Your task to perform on an android device: remove spam from my inbox in the gmail app Image 0: 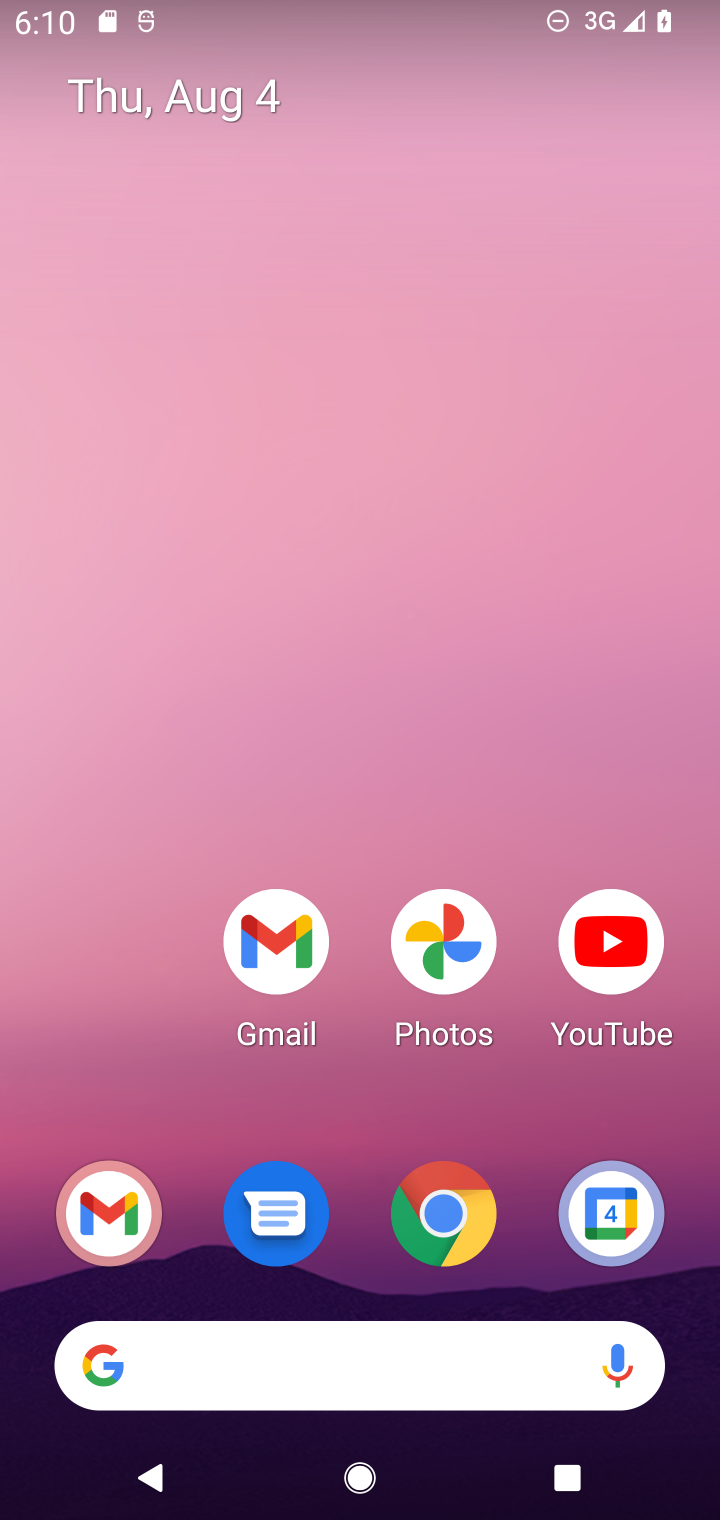
Step 0: press home button
Your task to perform on an android device: remove spam from my inbox in the gmail app Image 1: 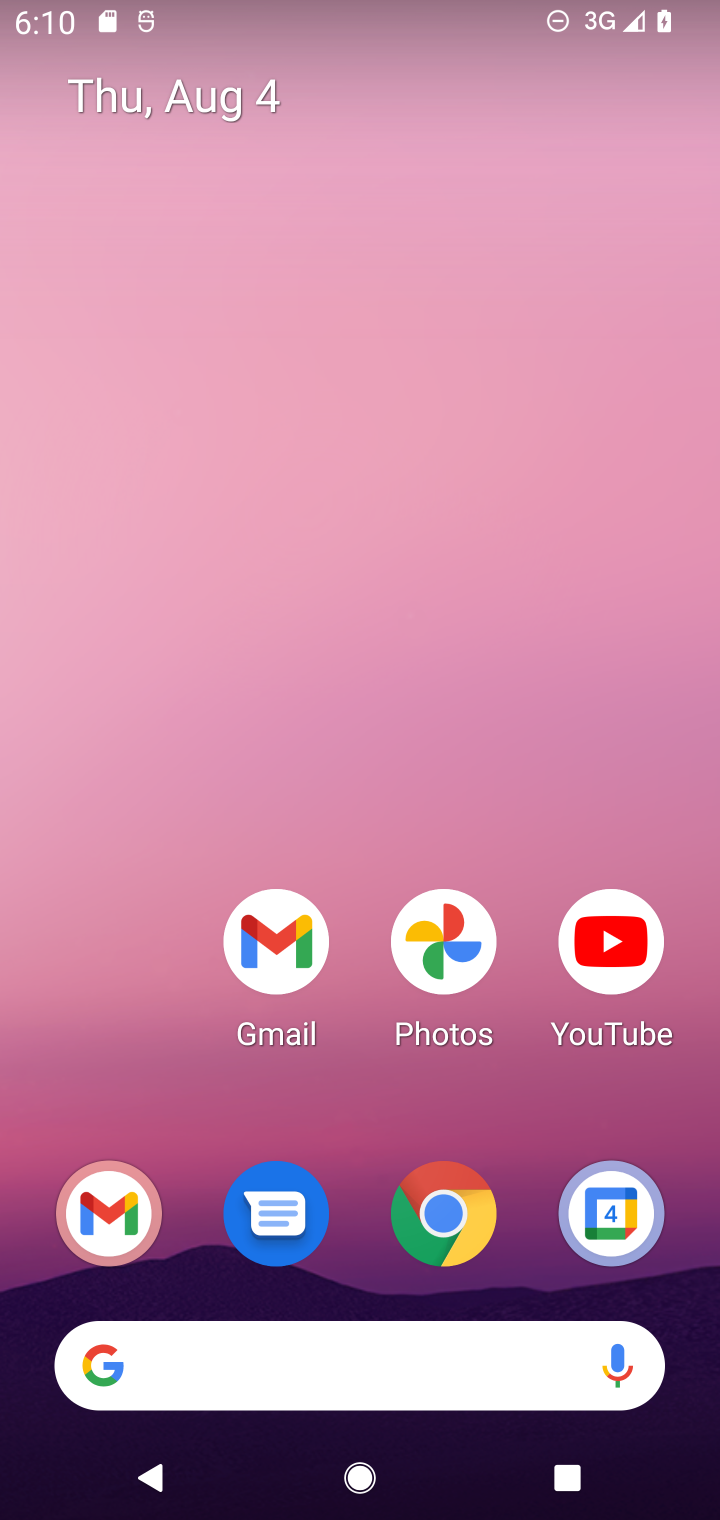
Step 1: drag from (154, 1101) to (154, 413)
Your task to perform on an android device: remove spam from my inbox in the gmail app Image 2: 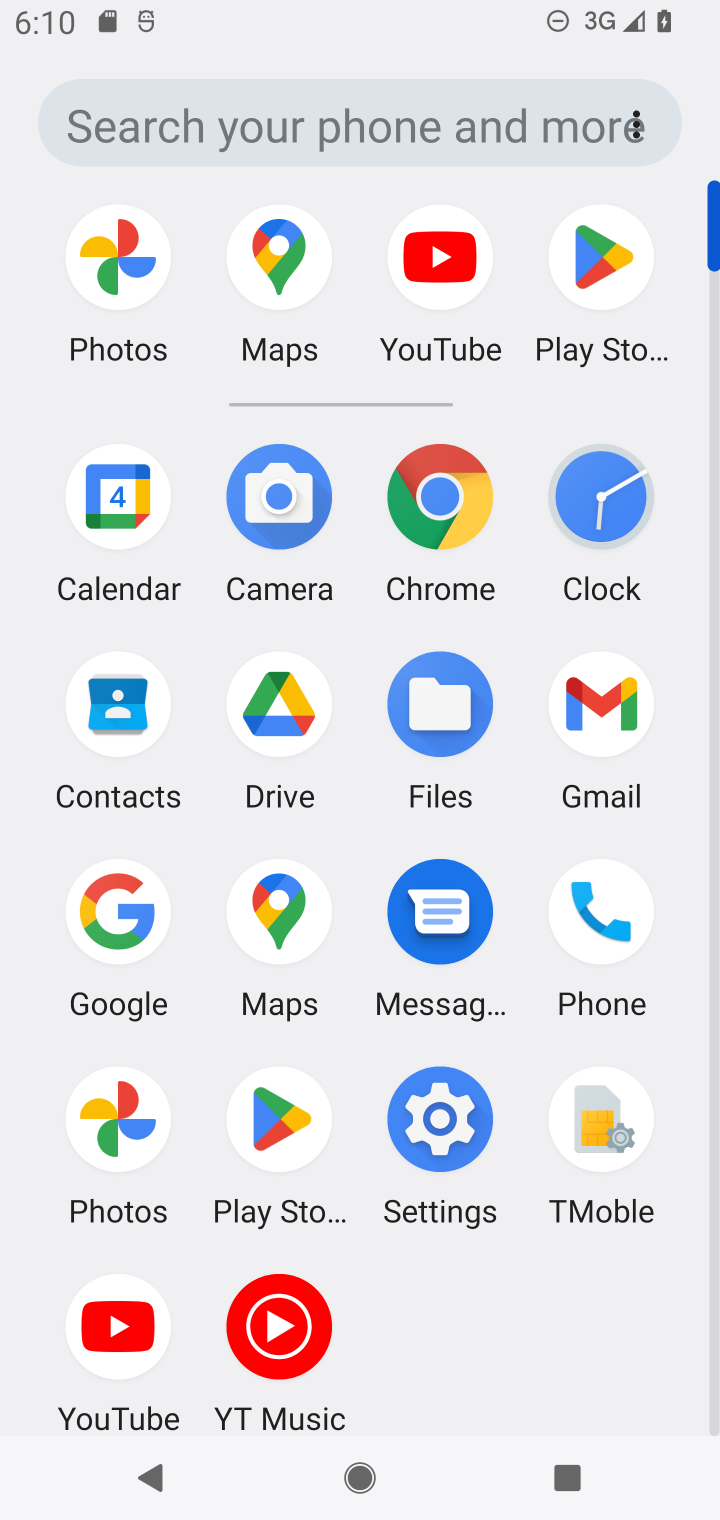
Step 2: click (606, 703)
Your task to perform on an android device: remove spam from my inbox in the gmail app Image 3: 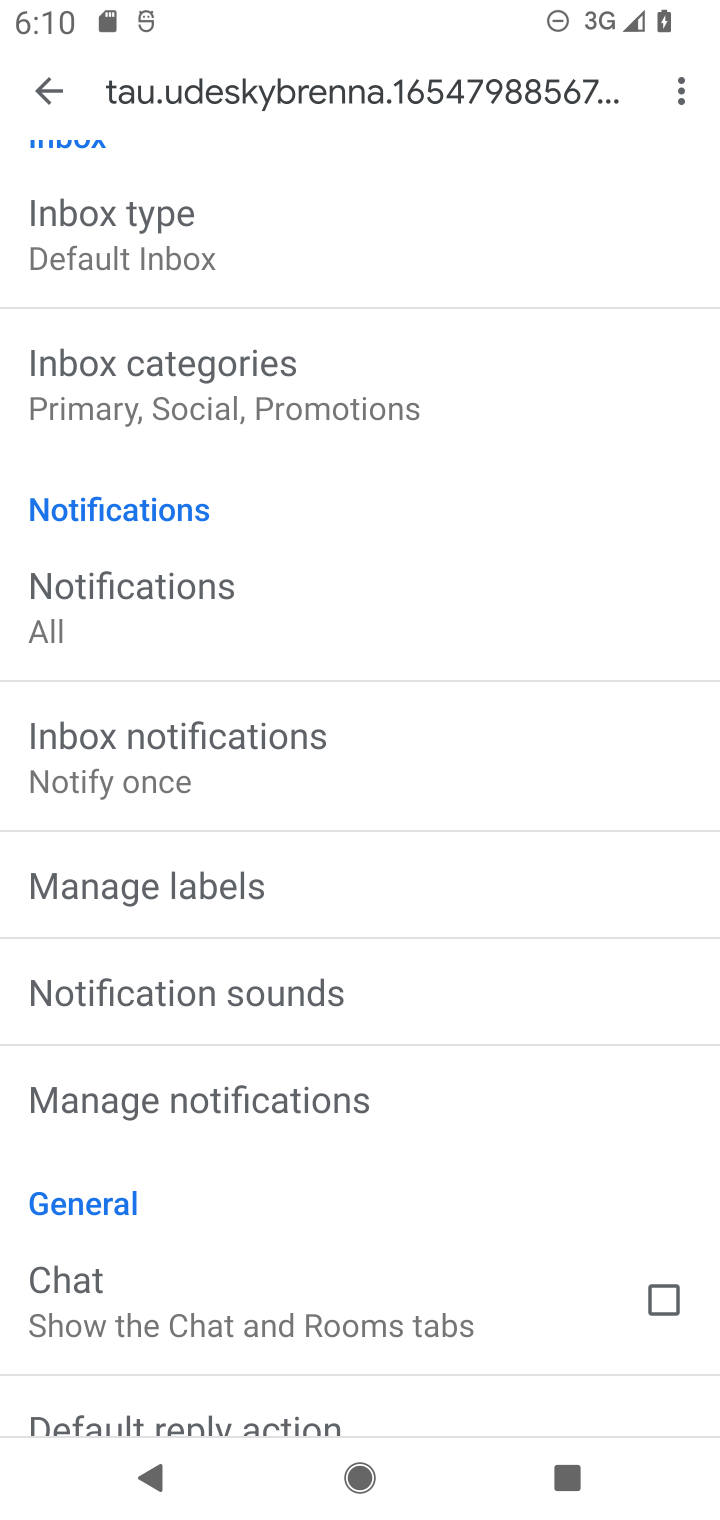
Step 3: drag from (558, 1027) to (558, 775)
Your task to perform on an android device: remove spam from my inbox in the gmail app Image 4: 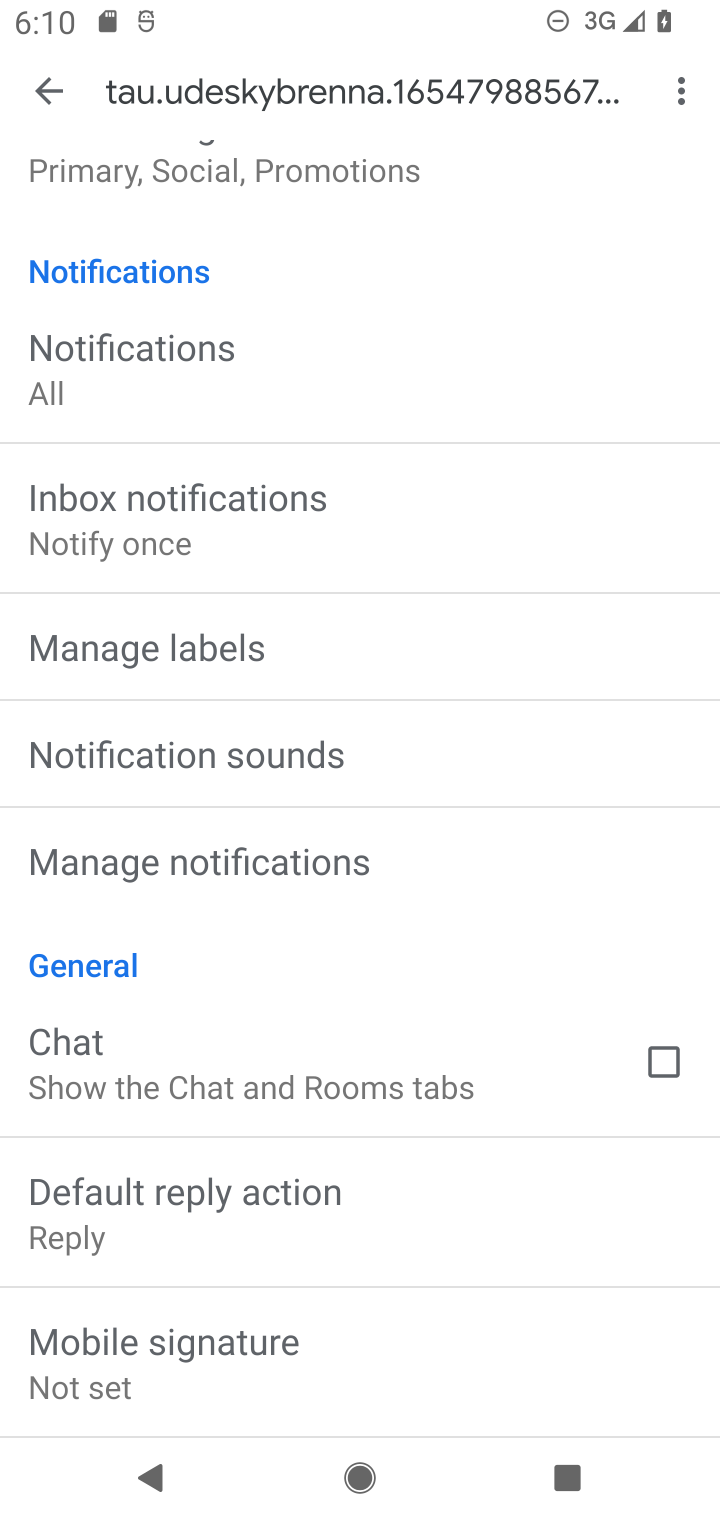
Step 4: drag from (519, 1231) to (543, 828)
Your task to perform on an android device: remove spam from my inbox in the gmail app Image 5: 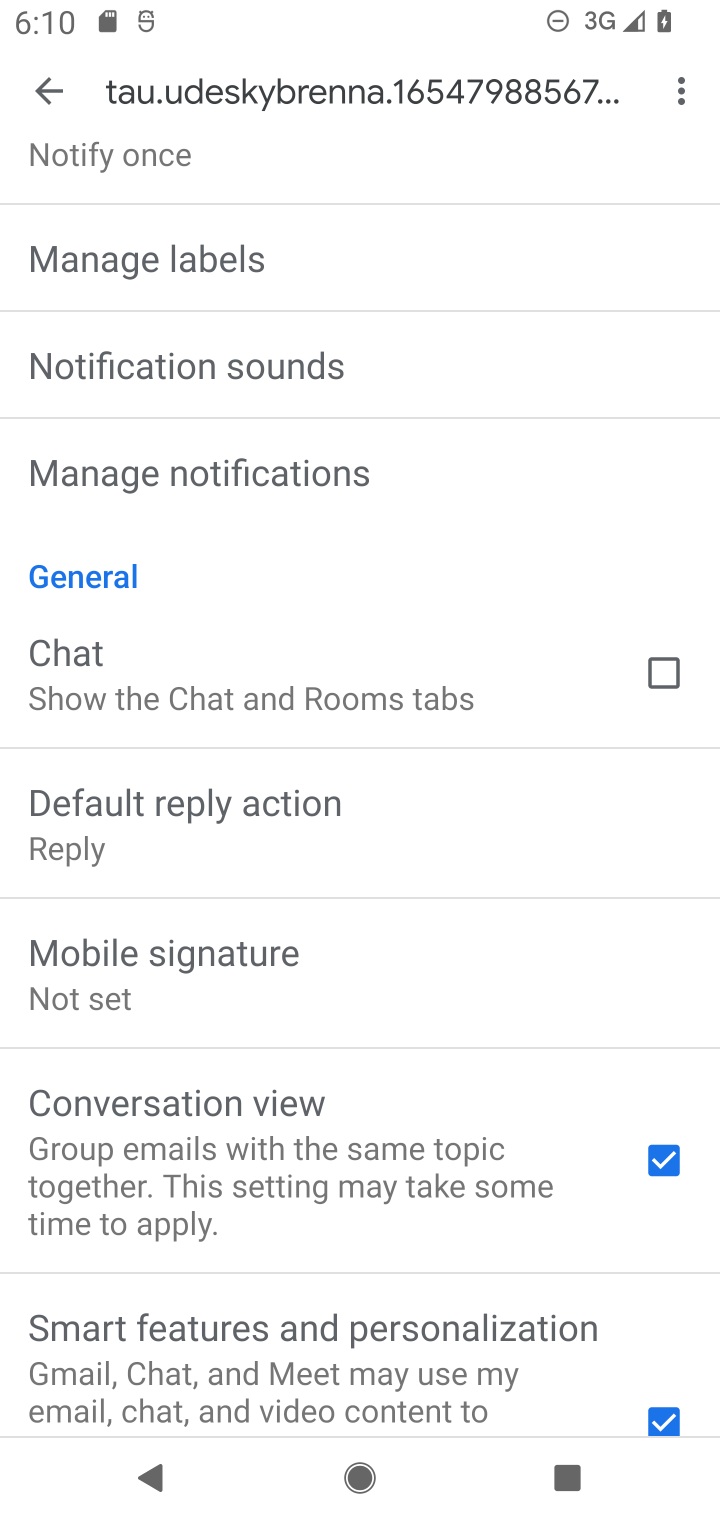
Step 5: drag from (547, 1223) to (556, 896)
Your task to perform on an android device: remove spam from my inbox in the gmail app Image 6: 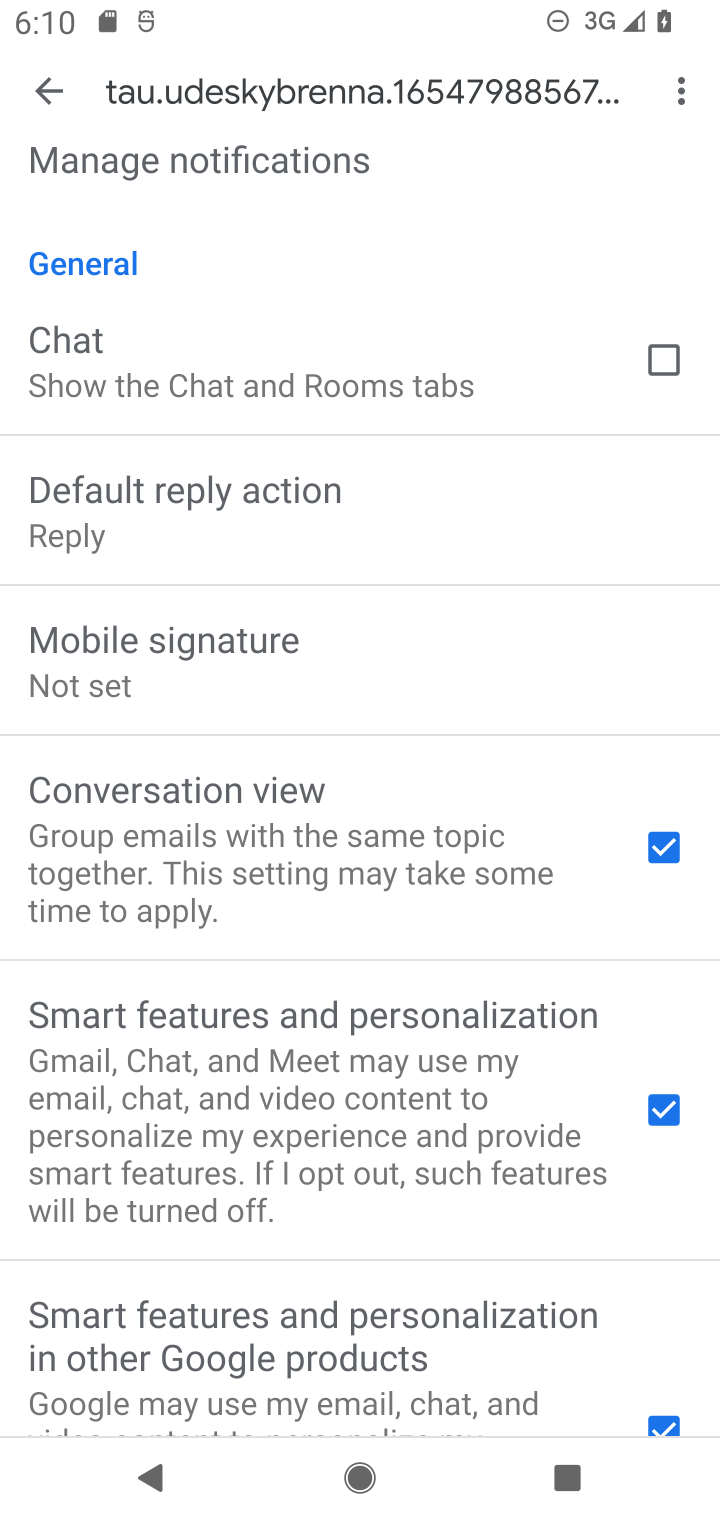
Step 6: drag from (502, 1332) to (503, 921)
Your task to perform on an android device: remove spam from my inbox in the gmail app Image 7: 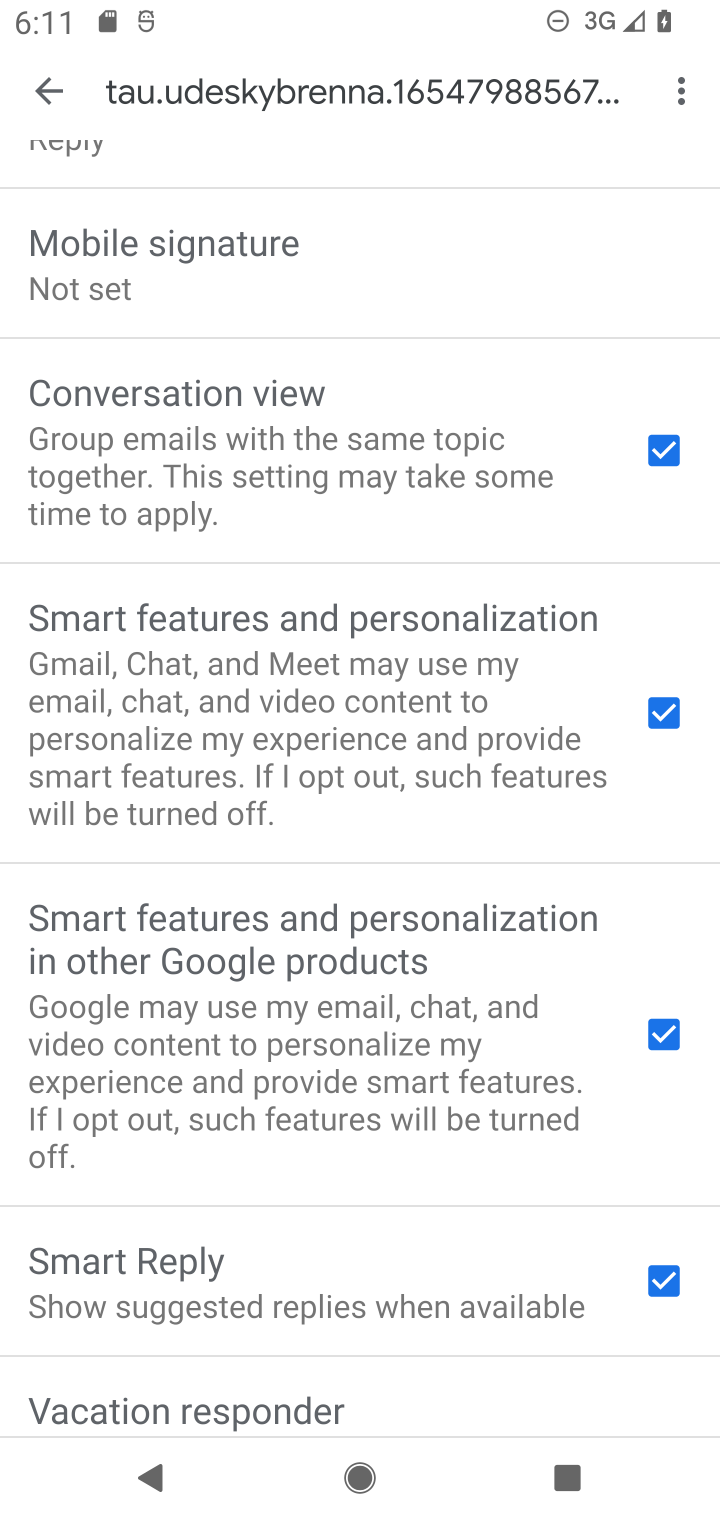
Step 7: drag from (502, 1259) to (504, 962)
Your task to perform on an android device: remove spam from my inbox in the gmail app Image 8: 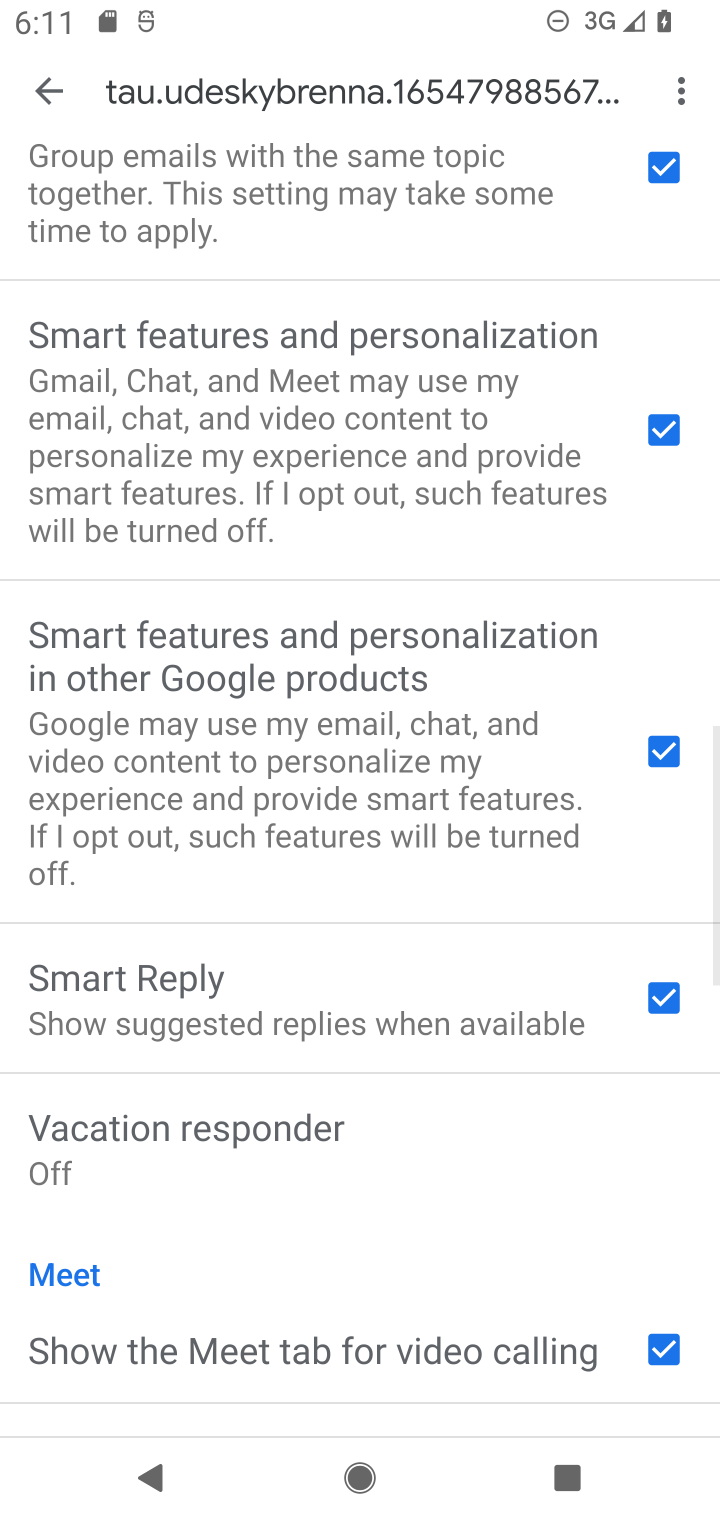
Step 8: drag from (496, 1370) to (496, 1018)
Your task to perform on an android device: remove spam from my inbox in the gmail app Image 9: 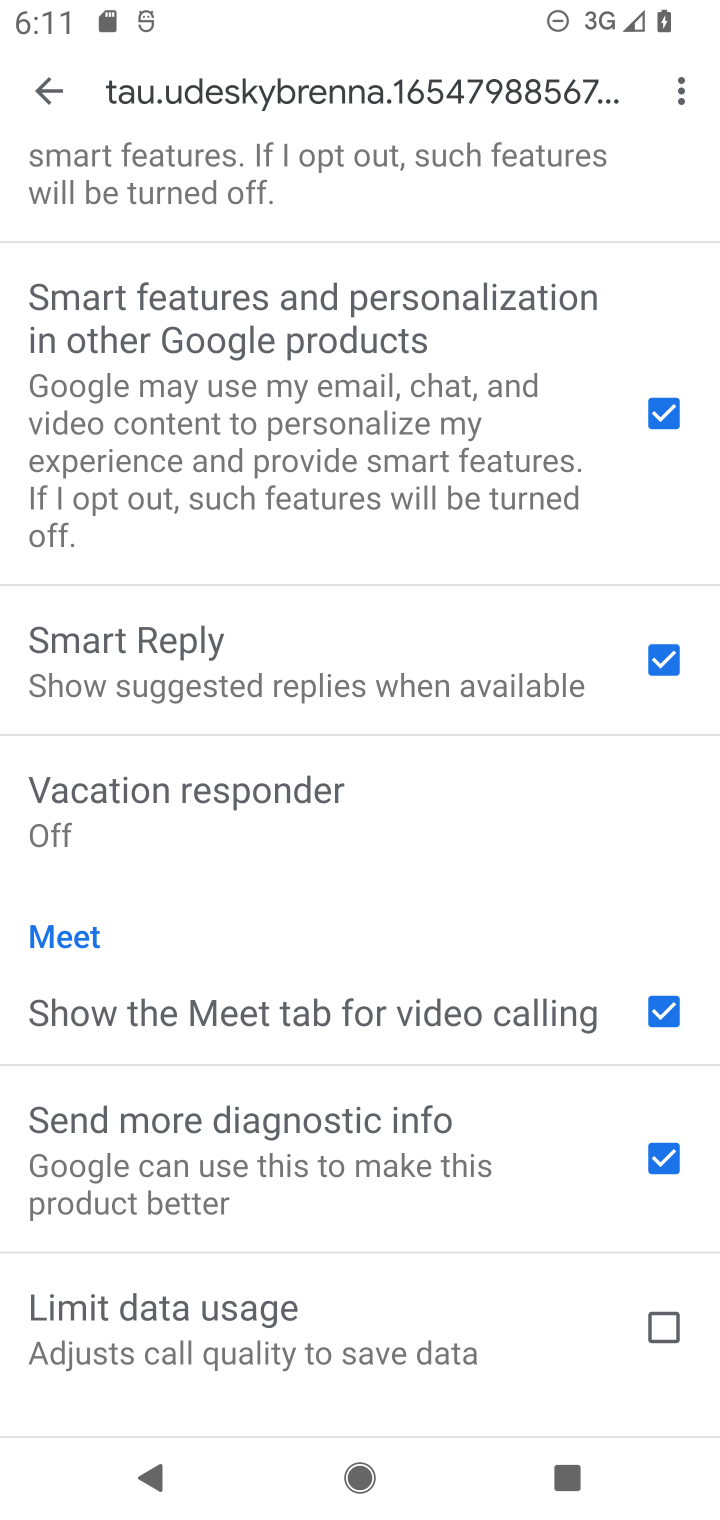
Step 9: press back button
Your task to perform on an android device: remove spam from my inbox in the gmail app Image 10: 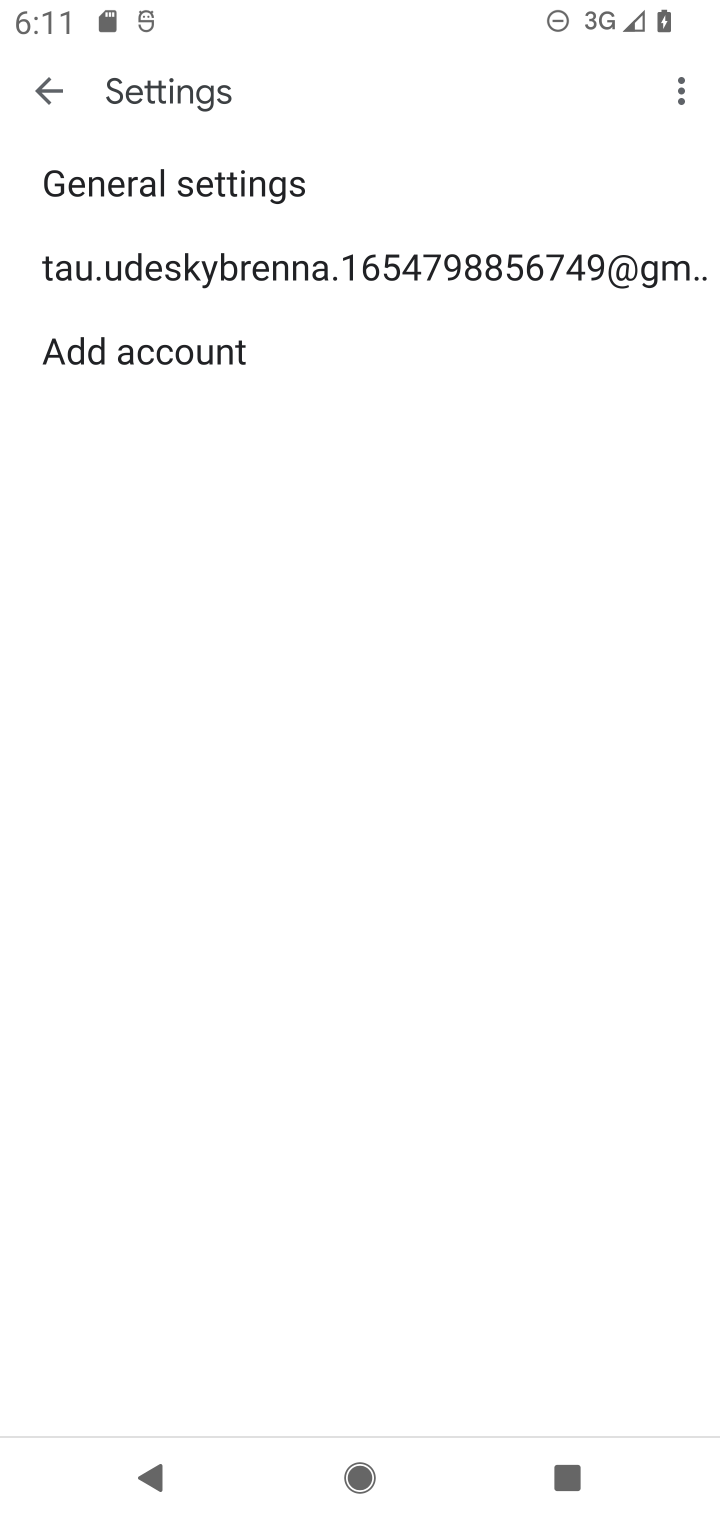
Step 10: press back button
Your task to perform on an android device: remove spam from my inbox in the gmail app Image 11: 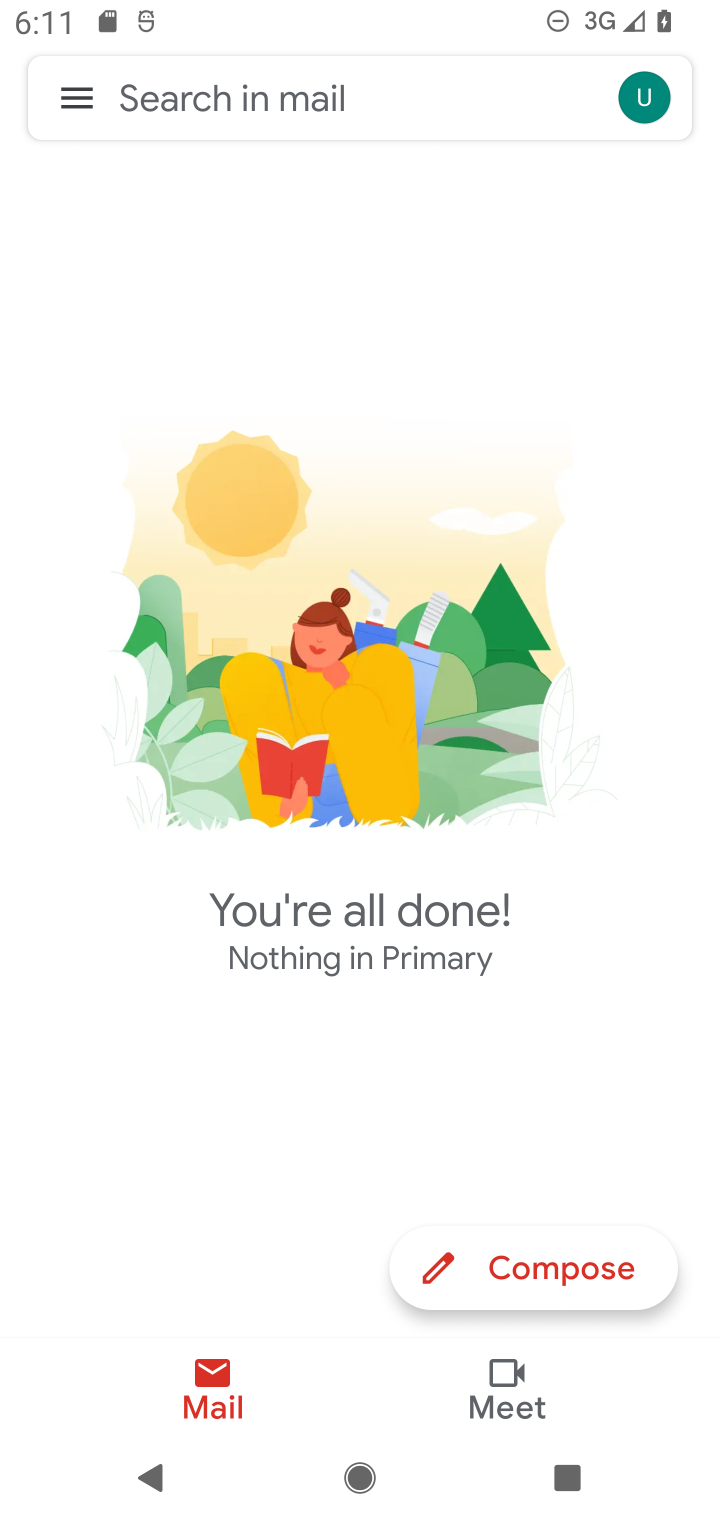
Step 11: click (94, 102)
Your task to perform on an android device: remove spam from my inbox in the gmail app Image 12: 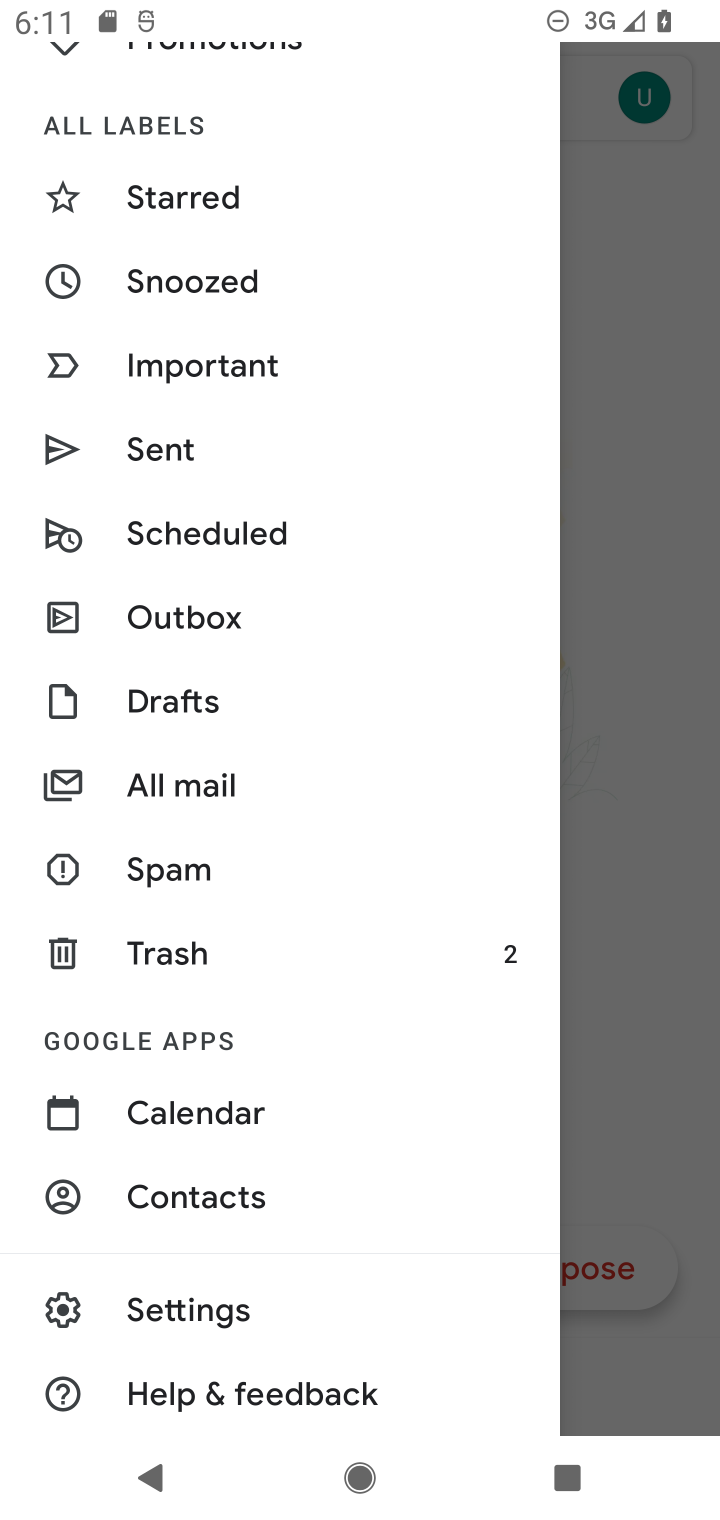
Step 12: click (217, 876)
Your task to perform on an android device: remove spam from my inbox in the gmail app Image 13: 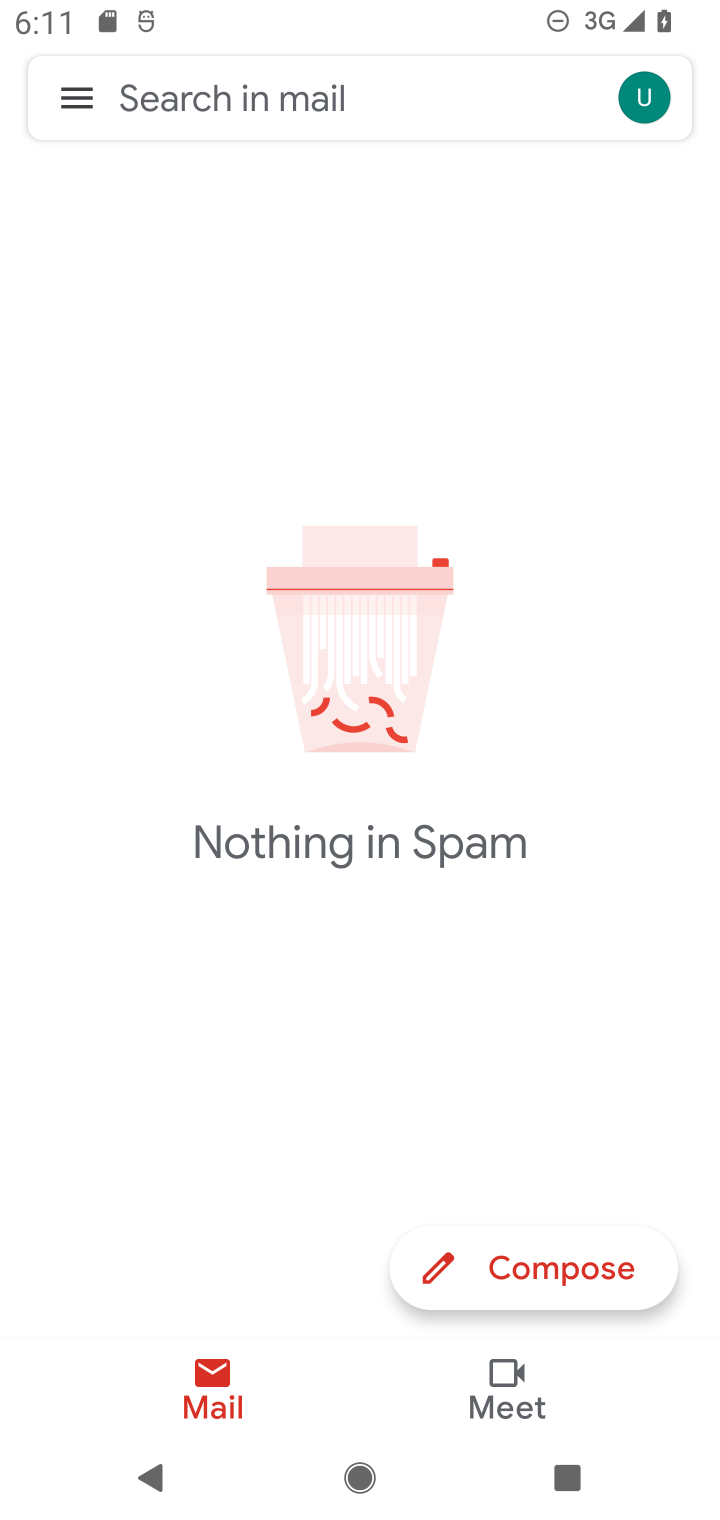
Step 13: task complete